Your task to perform on an android device: Clear all items from cart on ebay.com. Search for dell xps on ebay.com, select the first entry, add it to the cart, then select checkout. Image 0: 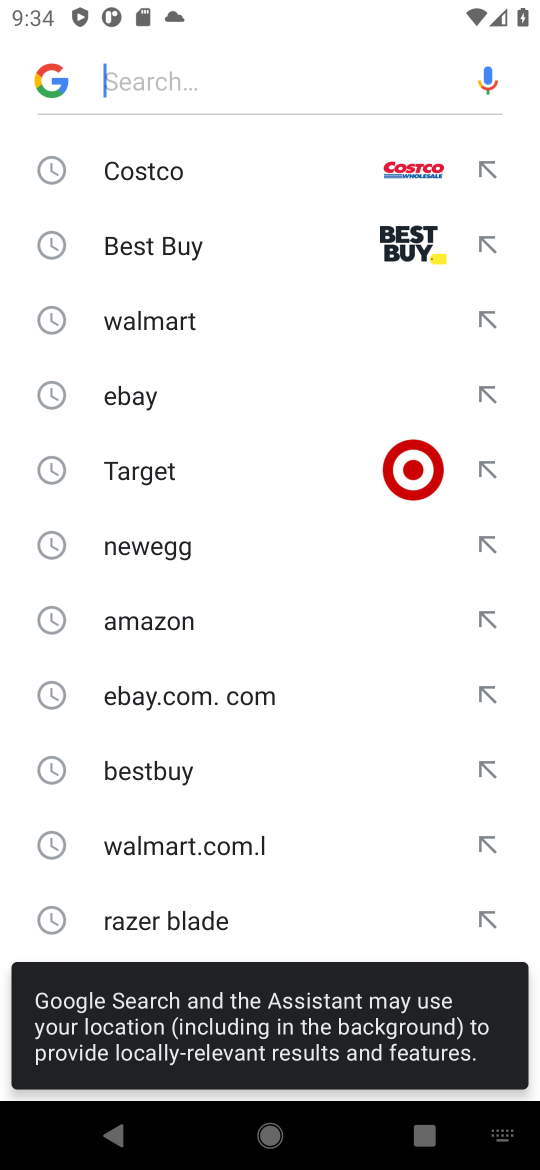
Step 0: press home button
Your task to perform on an android device: Clear all items from cart on ebay.com. Search for dell xps on ebay.com, select the first entry, add it to the cart, then select checkout. Image 1: 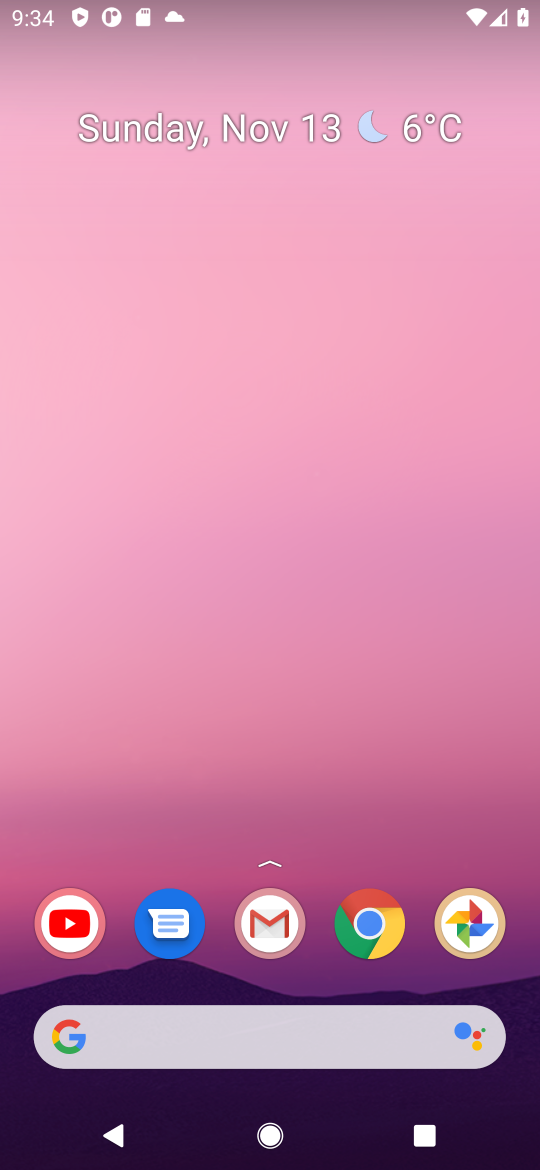
Step 1: click (378, 932)
Your task to perform on an android device: Clear all items from cart on ebay.com. Search for dell xps on ebay.com, select the first entry, add it to the cart, then select checkout. Image 2: 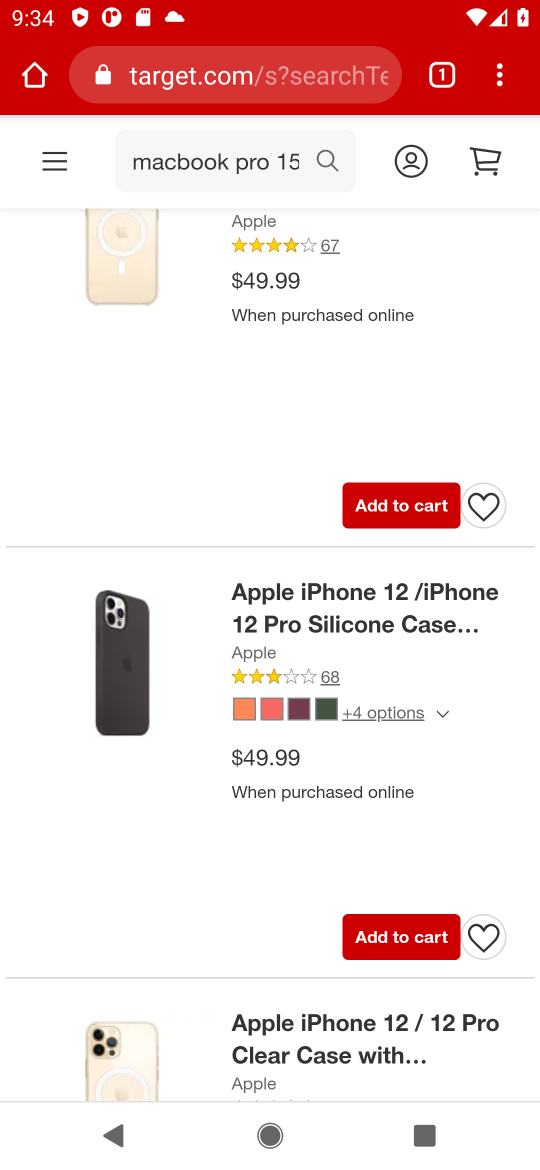
Step 2: click (340, 81)
Your task to perform on an android device: Clear all items from cart on ebay.com. Search for dell xps on ebay.com, select the first entry, add it to the cart, then select checkout. Image 3: 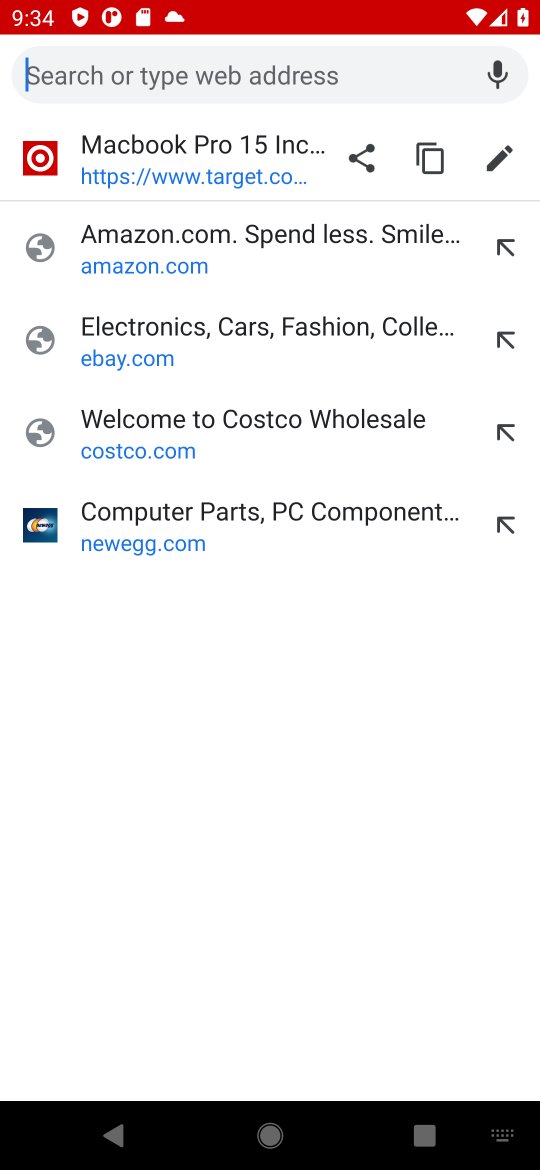
Step 3: press enter
Your task to perform on an android device: Clear all items from cart on ebay.com. Search for dell xps on ebay.com, select the first entry, add it to the cart, then select checkout. Image 4: 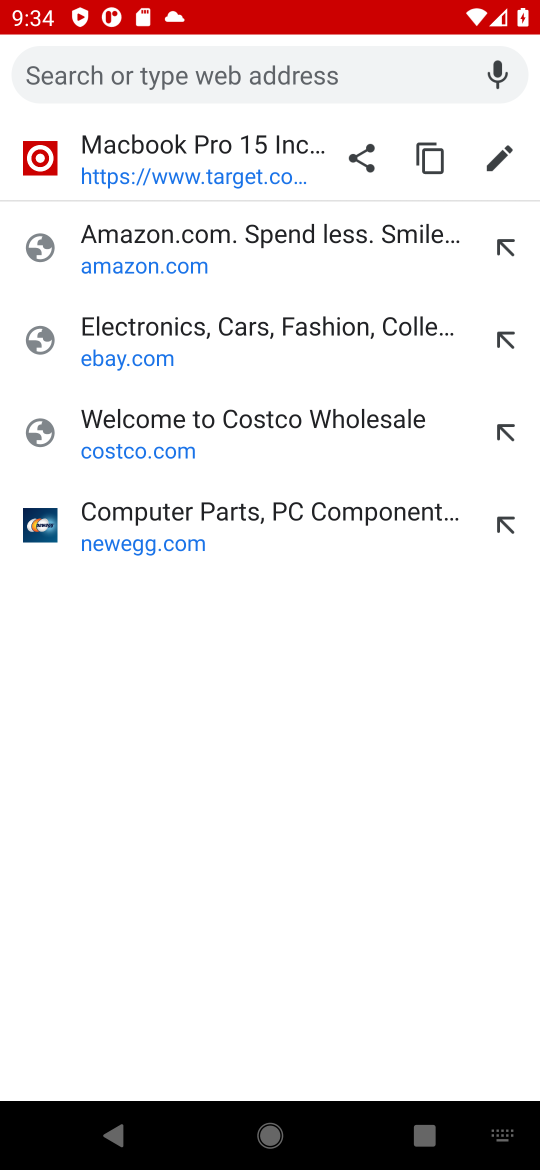
Step 4: type "ebay.com"
Your task to perform on an android device: Clear all items from cart on ebay.com. Search for dell xps on ebay.com, select the first entry, add it to the cart, then select checkout. Image 5: 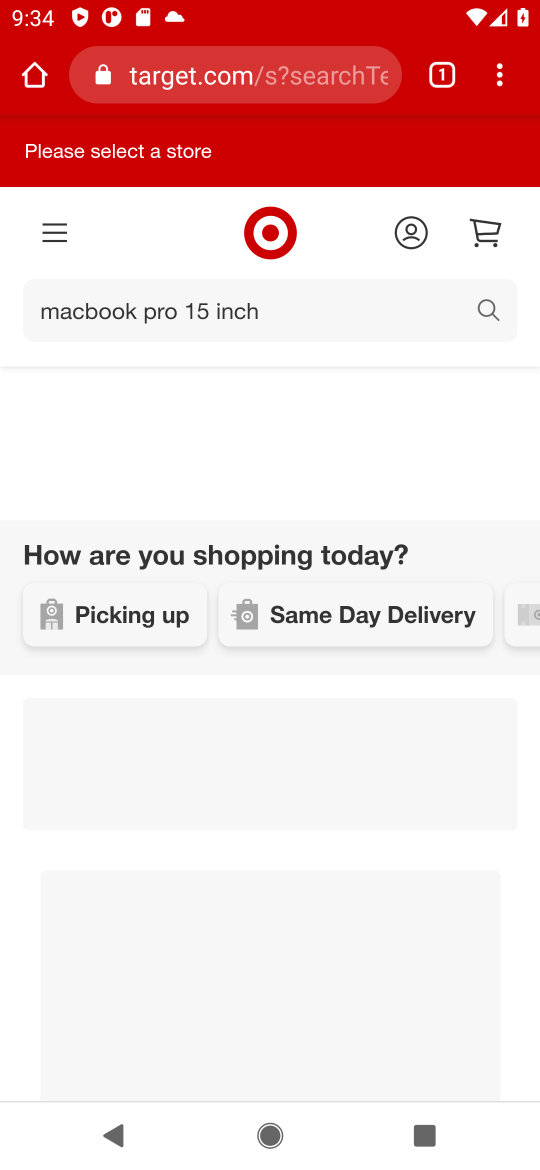
Step 5: click (266, 75)
Your task to perform on an android device: Clear all items from cart on ebay.com. Search for dell xps on ebay.com, select the first entry, add it to the cart, then select checkout. Image 6: 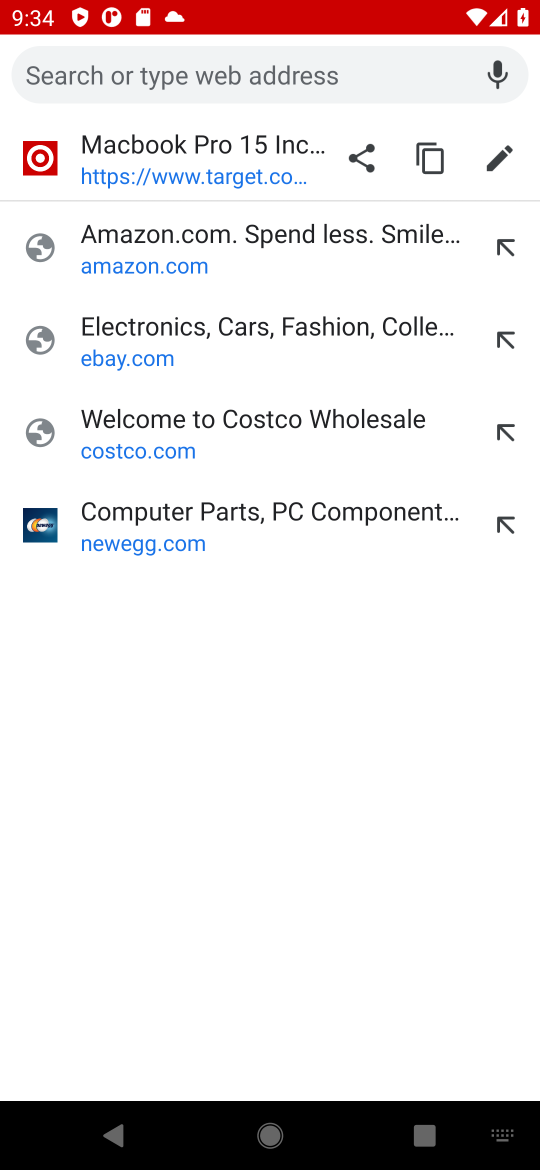
Step 6: type "ebay.com"
Your task to perform on an android device: Clear all items from cart on ebay.com. Search for dell xps on ebay.com, select the first entry, add it to the cart, then select checkout. Image 7: 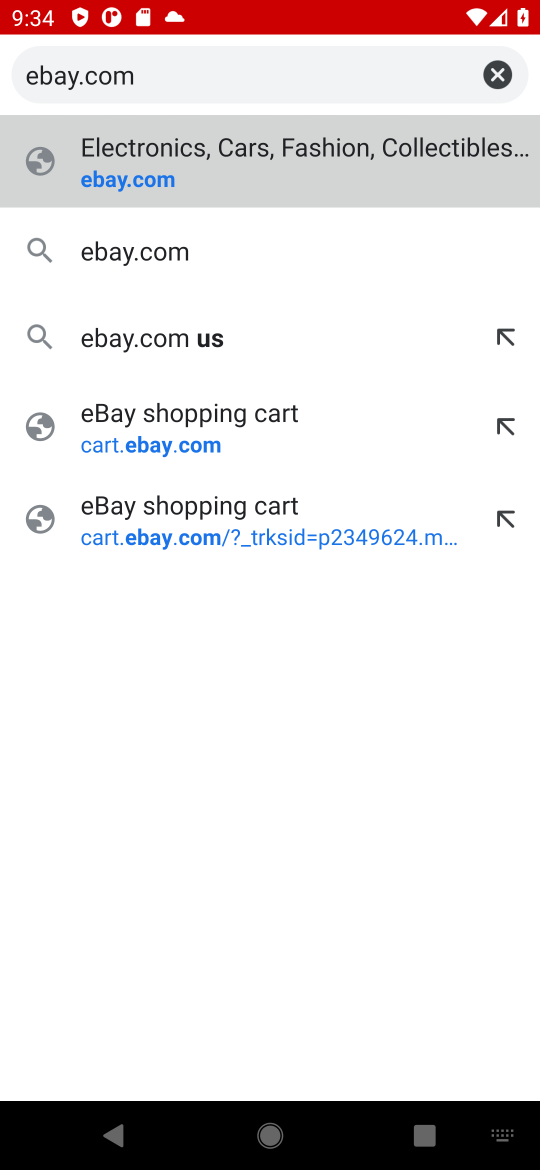
Step 7: press enter
Your task to perform on an android device: Clear all items from cart on ebay.com. Search for dell xps on ebay.com, select the first entry, add it to the cart, then select checkout. Image 8: 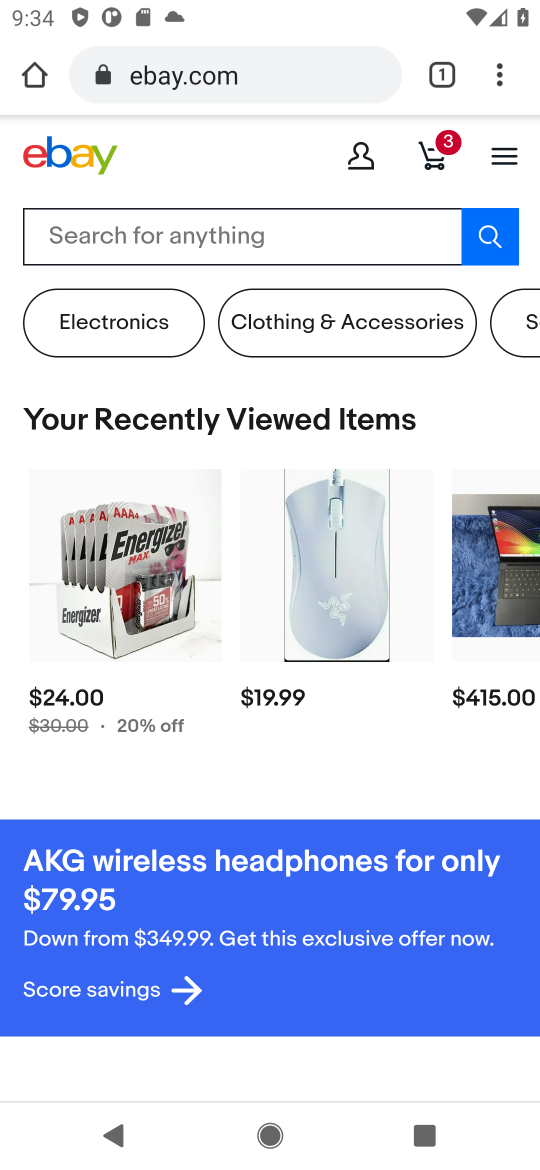
Step 8: click (434, 157)
Your task to perform on an android device: Clear all items from cart on ebay.com. Search for dell xps on ebay.com, select the first entry, add it to the cart, then select checkout. Image 9: 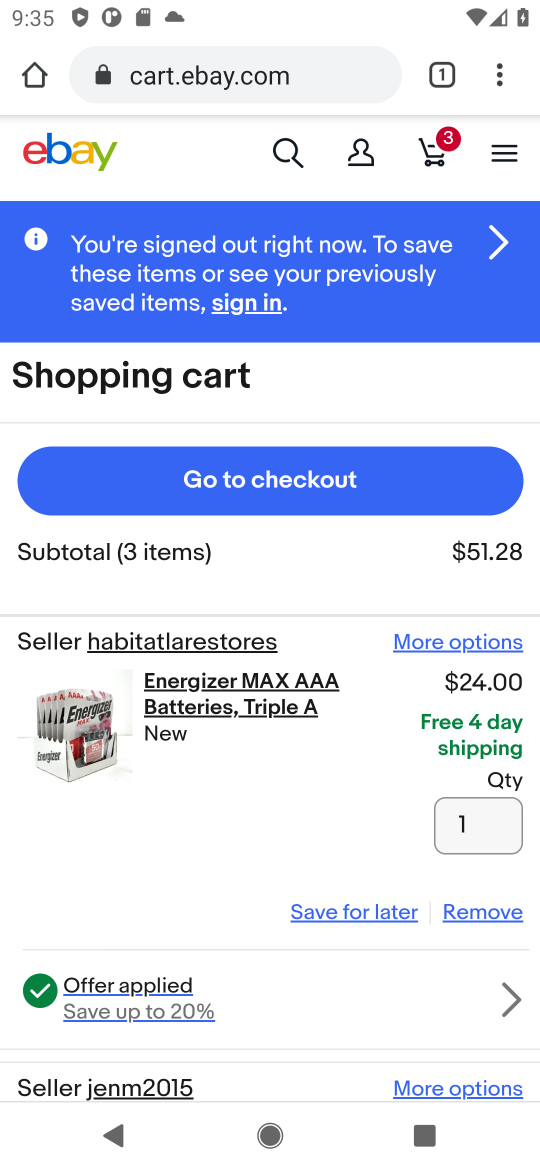
Step 9: click (479, 914)
Your task to perform on an android device: Clear all items from cart on ebay.com. Search for dell xps on ebay.com, select the first entry, add it to the cart, then select checkout. Image 10: 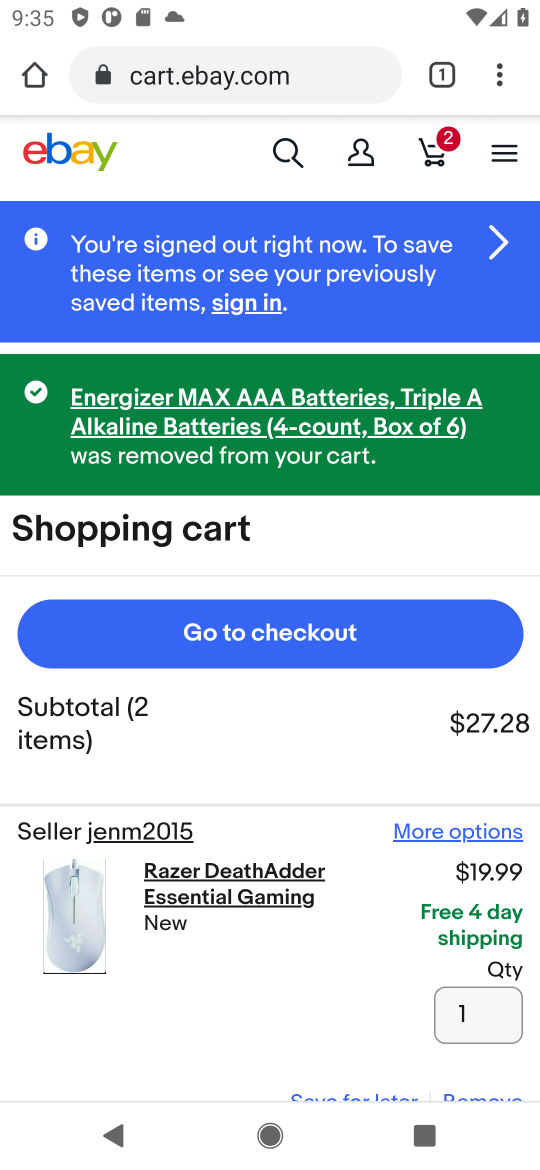
Step 10: drag from (348, 983) to (374, 568)
Your task to perform on an android device: Clear all items from cart on ebay.com. Search for dell xps on ebay.com, select the first entry, add it to the cart, then select checkout. Image 11: 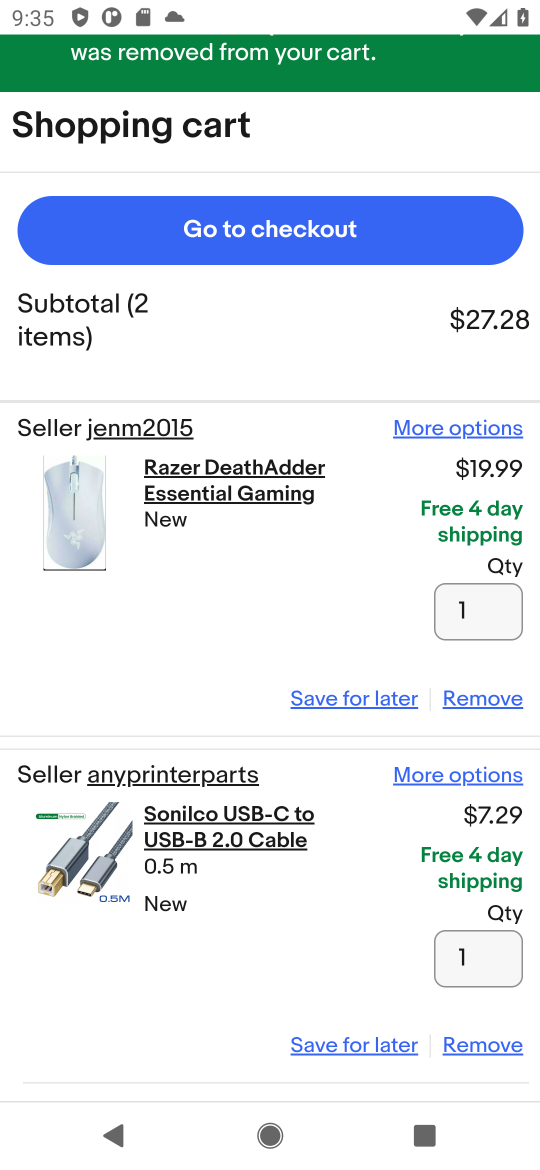
Step 11: click (493, 691)
Your task to perform on an android device: Clear all items from cart on ebay.com. Search for dell xps on ebay.com, select the first entry, add it to the cart, then select checkout. Image 12: 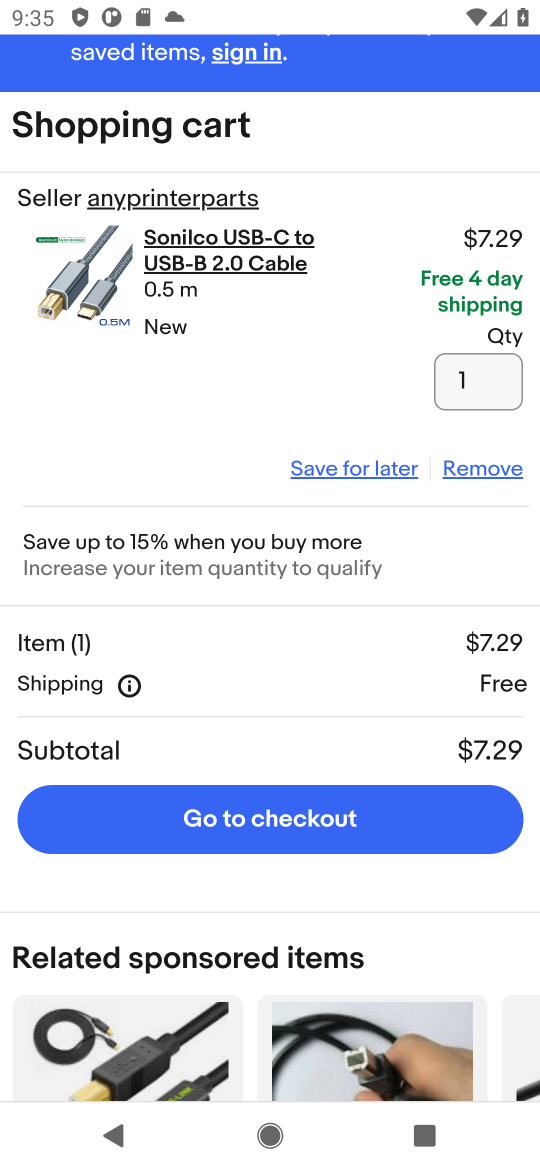
Step 12: drag from (476, 818) to (477, 701)
Your task to perform on an android device: Clear all items from cart on ebay.com. Search for dell xps on ebay.com, select the first entry, add it to the cart, then select checkout. Image 13: 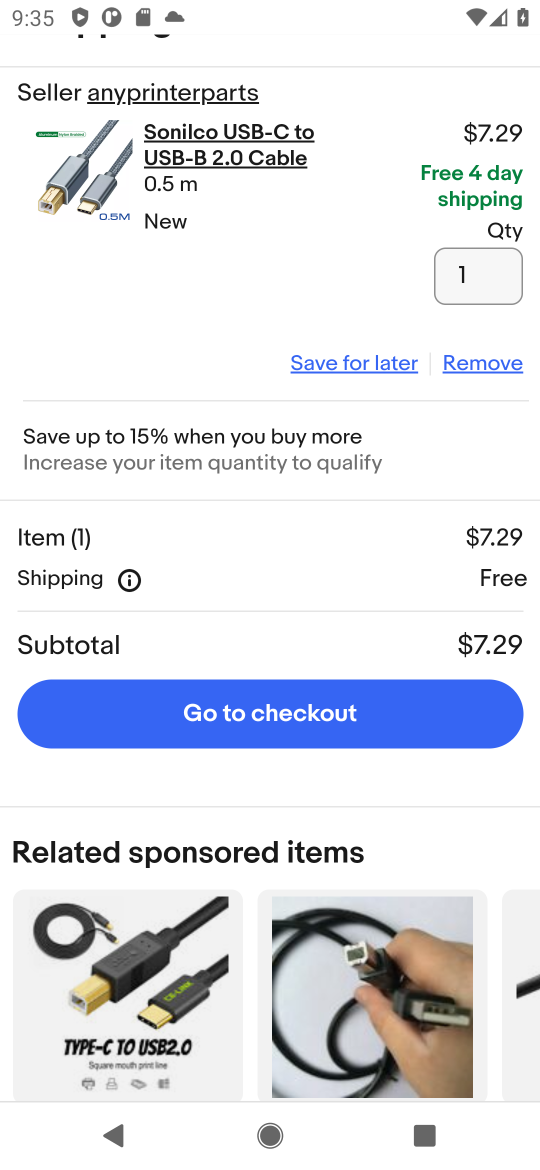
Step 13: click (499, 364)
Your task to perform on an android device: Clear all items from cart on ebay.com. Search for dell xps on ebay.com, select the first entry, add it to the cart, then select checkout. Image 14: 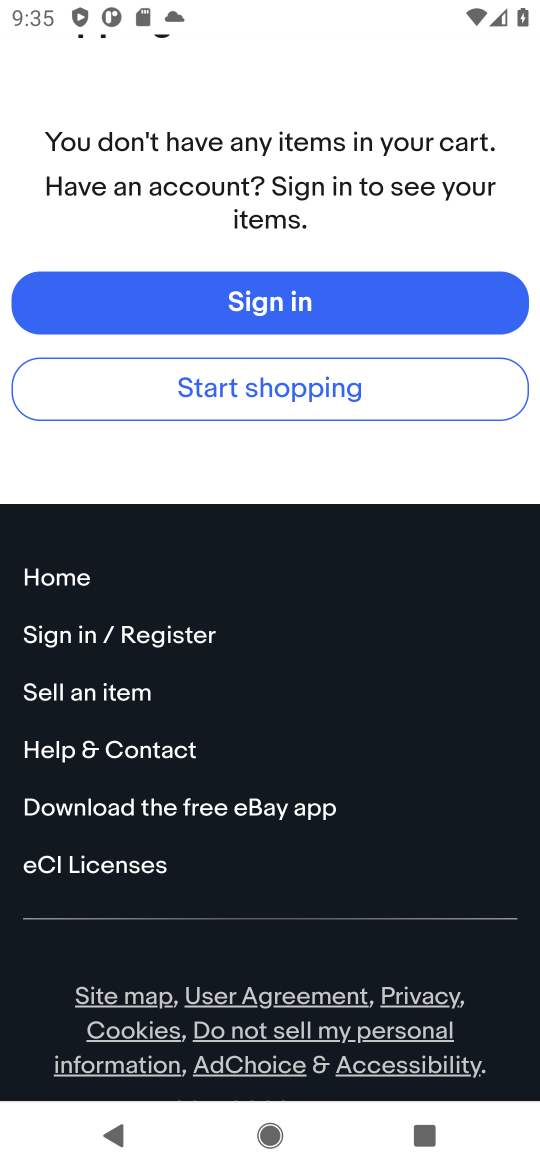
Step 14: drag from (432, 501) to (535, 1127)
Your task to perform on an android device: Clear all items from cart on ebay.com. Search for dell xps on ebay.com, select the first entry, add it to the cart, then select checkout. Image 15: 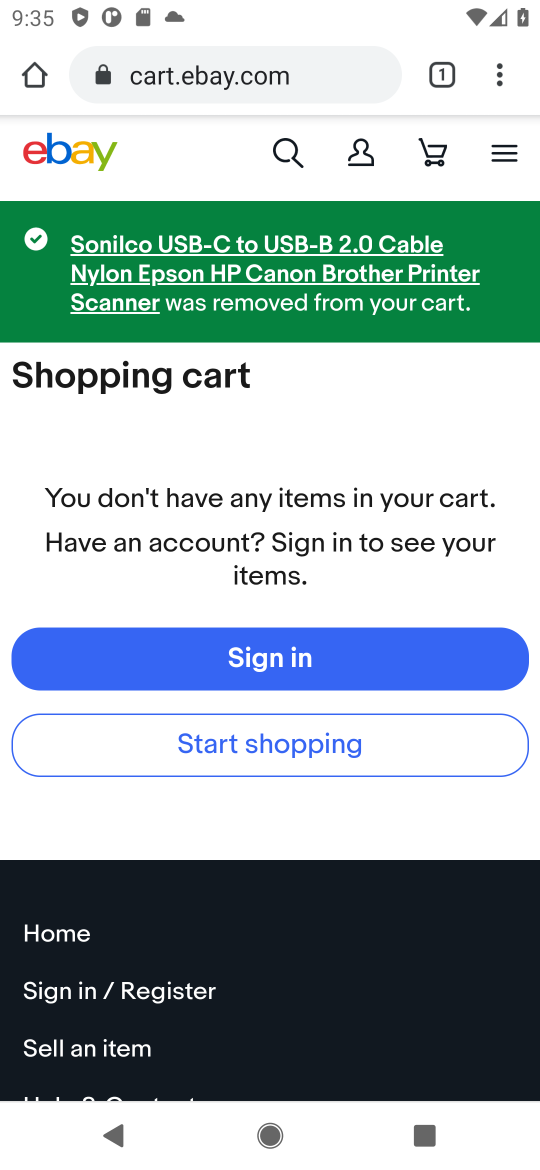
Step 15: click (282, 147)
Your task to perform on an android device: Clear all items from cart on ebay.com. Search for dell xps on ebay.com, select the first entry, add it to the cart, then select checkout. Image 16: 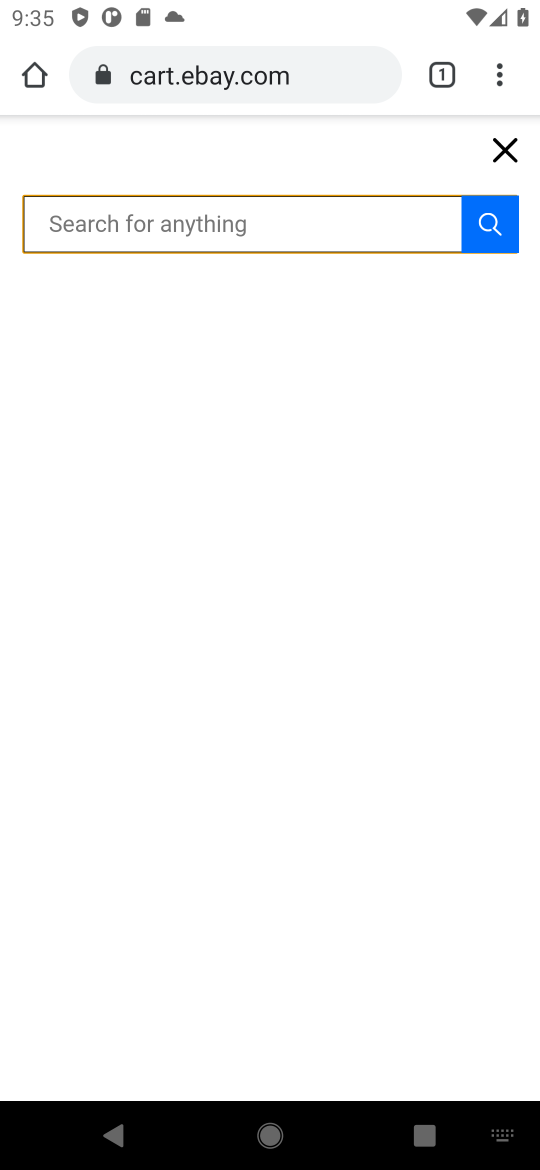
Step 16: type "dell xps "
Your task to perform on an android device: Clear all items from cart on ebay.com. Search for dell xps on ebay.com, select the first entry, add it to the cart, then select checkout. Image 17: 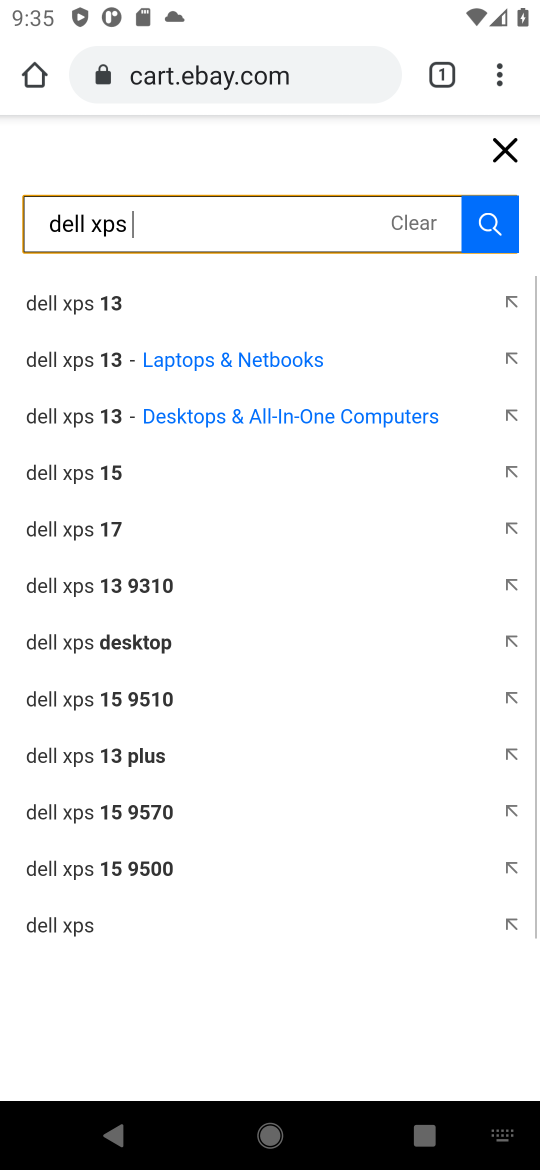
Step 17: press enter
Your task to perform on an android device: Clear all items from cart on ebay.com. Search for dell xps on ebay.com, select the first entry, add it to the cart, then select checkout. Image 18: 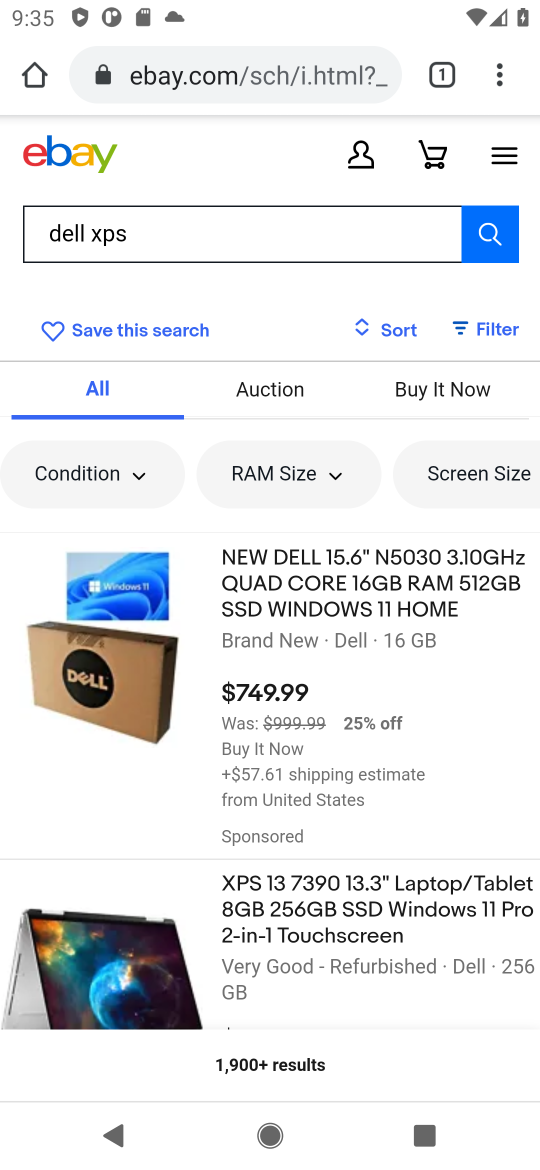
Step 18: drag from (412, 848) to (483, 454)
Your task to perform on an android device: Clear all items from cart on ebay.com. Search for dell xps on ebay.com, select the first entry, add it to the cart, then select checkout. Image 19: 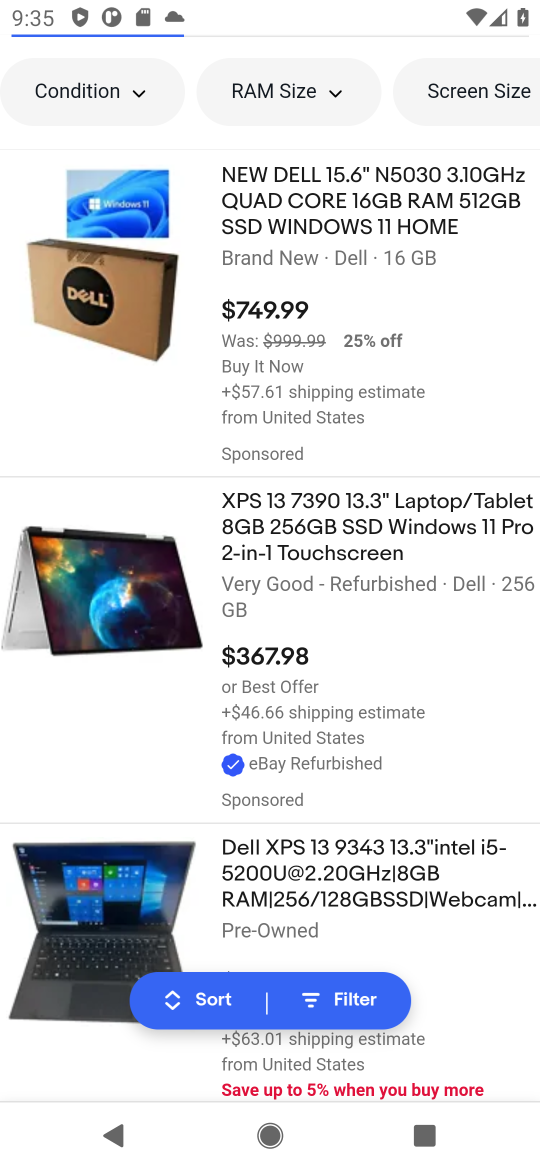
Step 19: click (96, 911)
Your task to perform on an android device: Clear all items from cart on ebay.com. Search for dell xps on ebay.com, select the first entry, add it to the cart, then select checkout. Image 20: 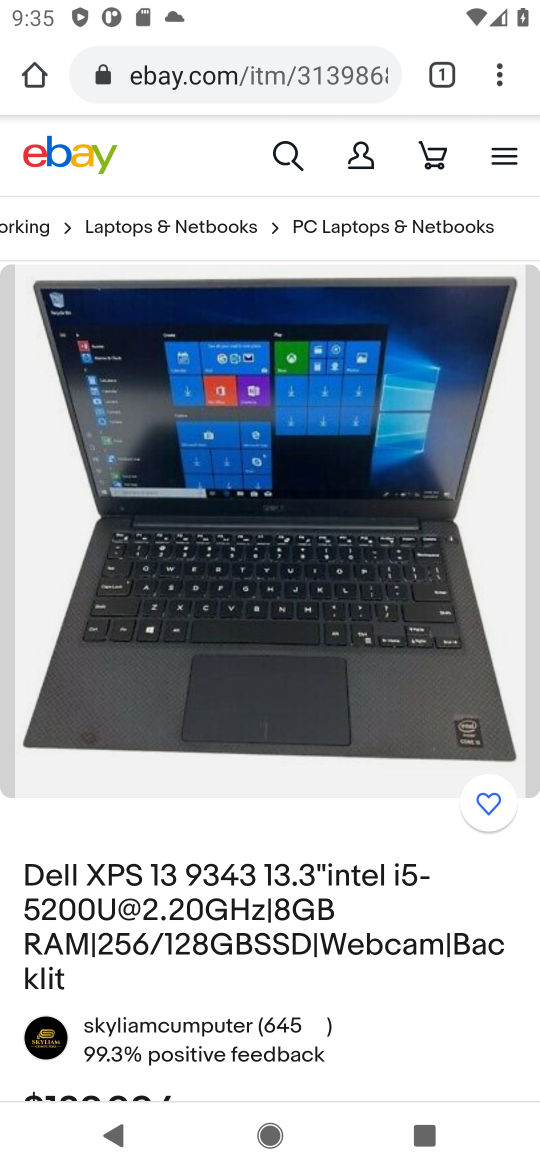
Step 20: drag from (329, 757) to (294, 419)
Your task to perform on an android device: Clear all items from cart on ebay.com. Search for dell xps on ebay.com, select the first entry, add it to the cart, then select checkout. Image 21: 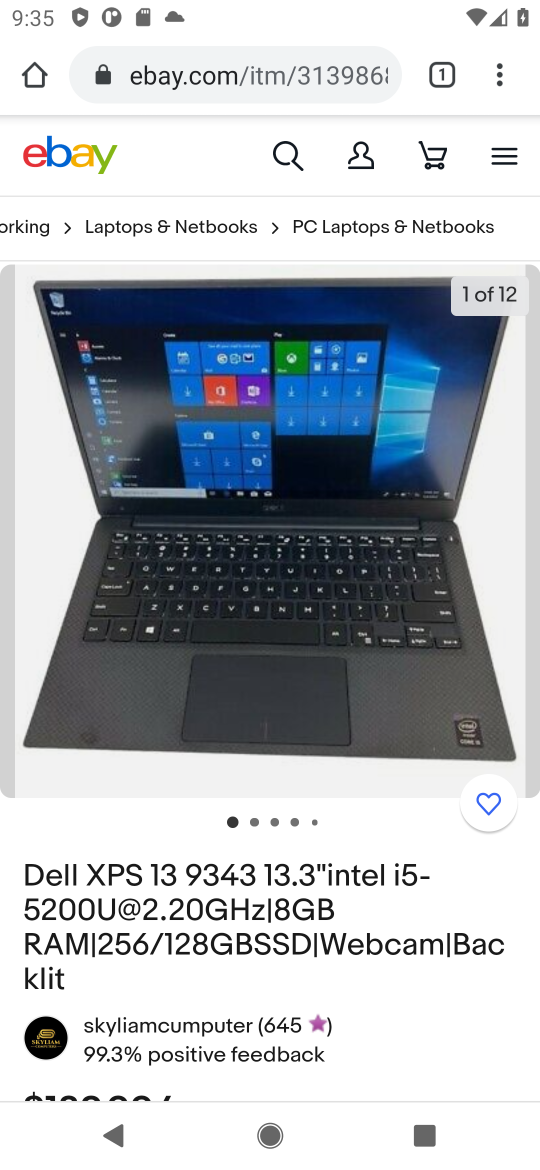
Step 21: drag from (409, 738) to (377, 341)
Your task to perform on an android device: Clear all items from cart on ebay.com. Search for dell xps on ebay.com, select the first entry, add it to the cart, then select checkout. Image 22: 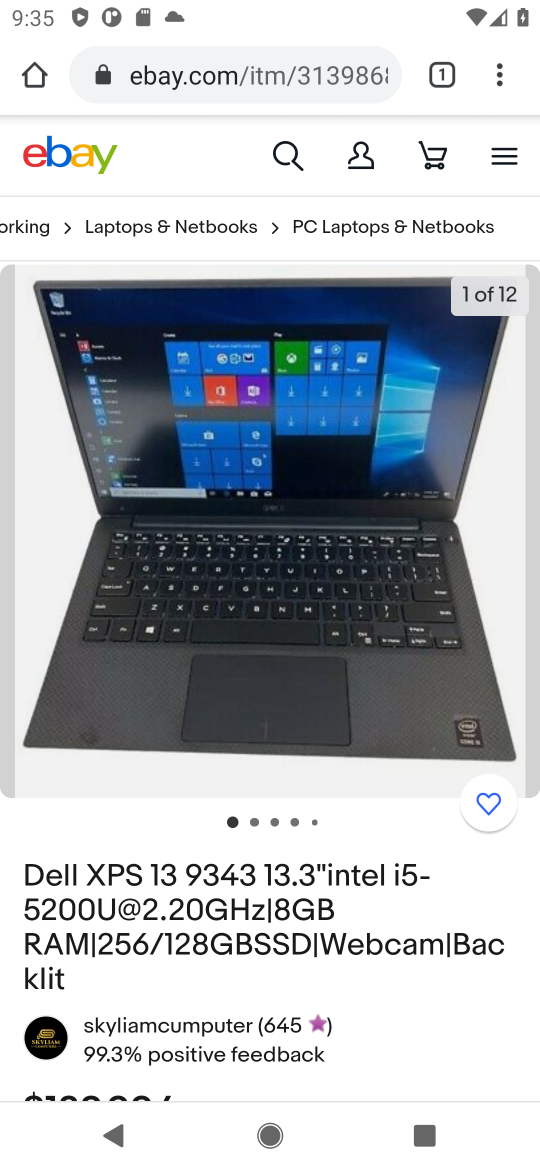
Step 22: drag from (398, 947) to (500, 228)
Your task to perform on an android device: Clear all items from cart on ebay.com. Search for dell xps on ebay.com, select the first entry, add it to the cart, then select checkout. Image 23: 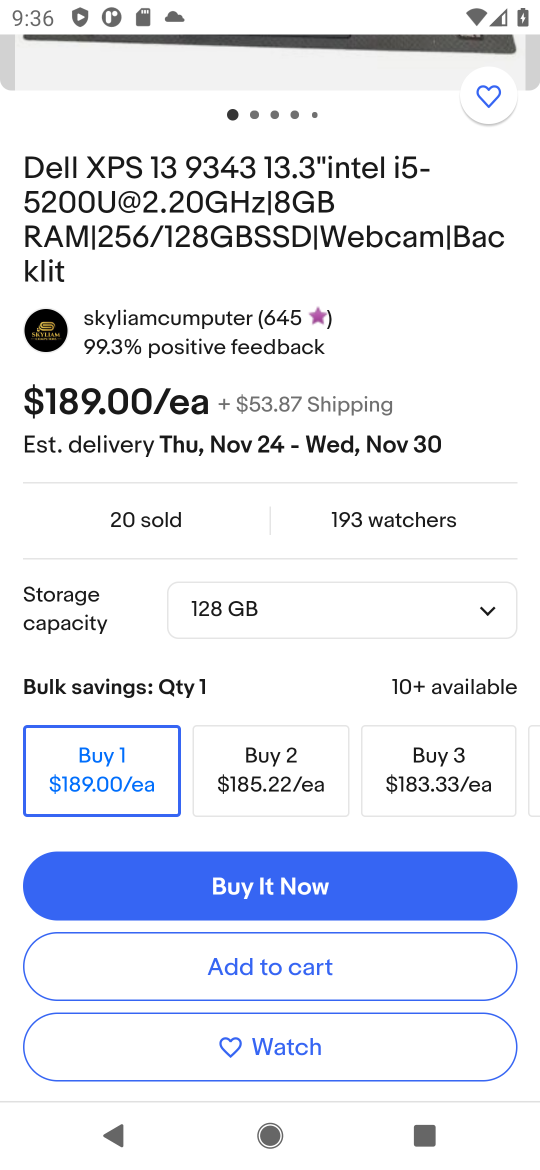
Step 23: click (291, 959)
Your task to perform on an android device: Clear all items from cart on ebay.com. Search for dell xps on ebay.com, select the first entry, add it to the cart, then select checkout. Image 24: 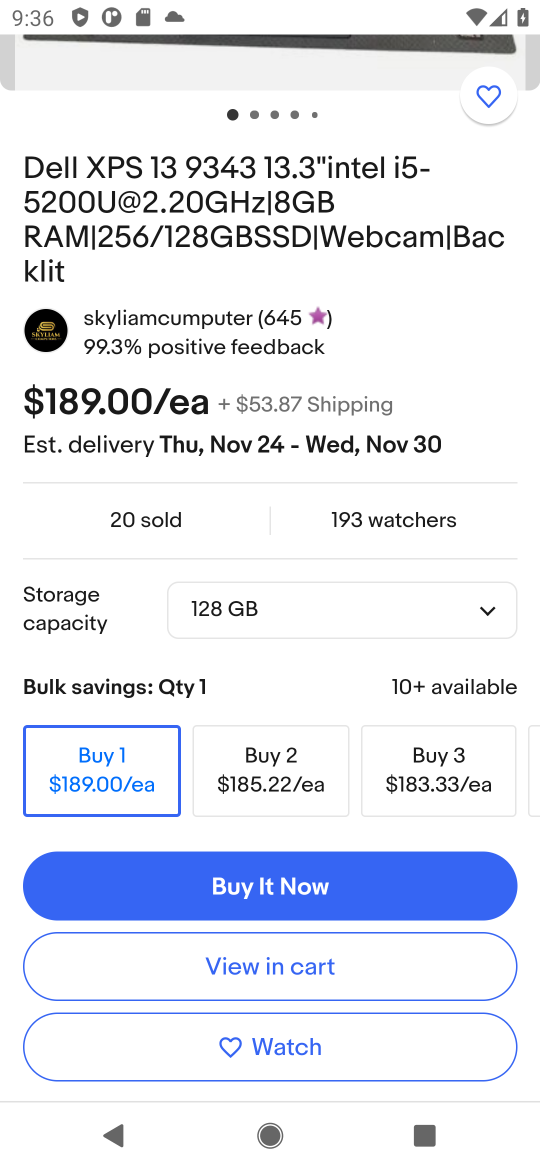
Step 24: click (245, 966)
Your task to perform on an android device: Clear all items from cart on ebay.com. Search for dell xps on ebay.com, select the first entry, add it to the cart, then select checkout. Image 25: 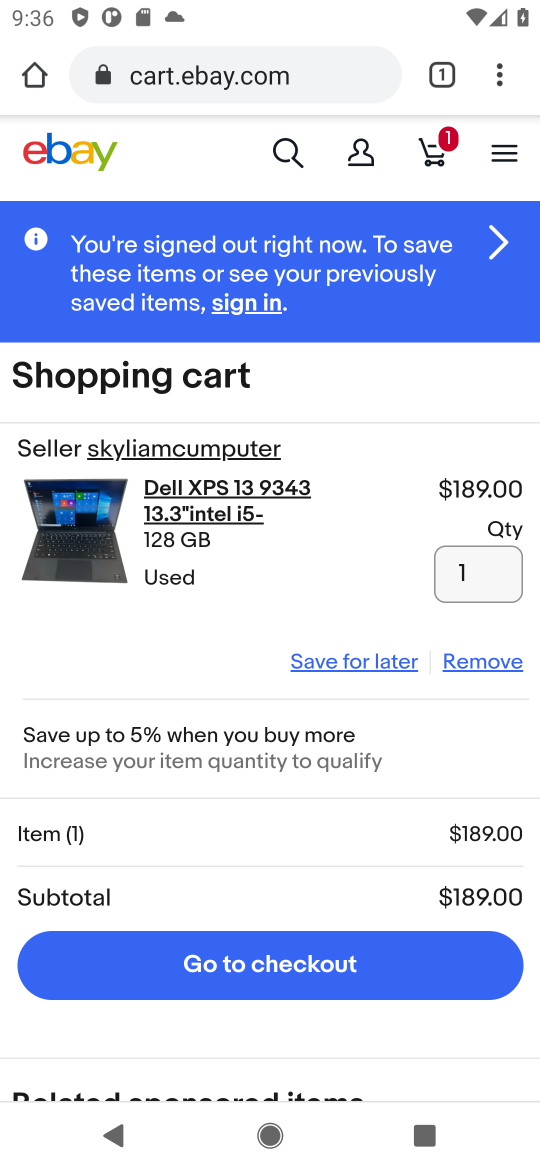
Step 25: click (285, 959)
Your task to perform on an android device: Clear all items from cart on ebay.com. Search for dell xps on ebay.com, select the first entry, add it to the cart, then select checkout. Image 26: 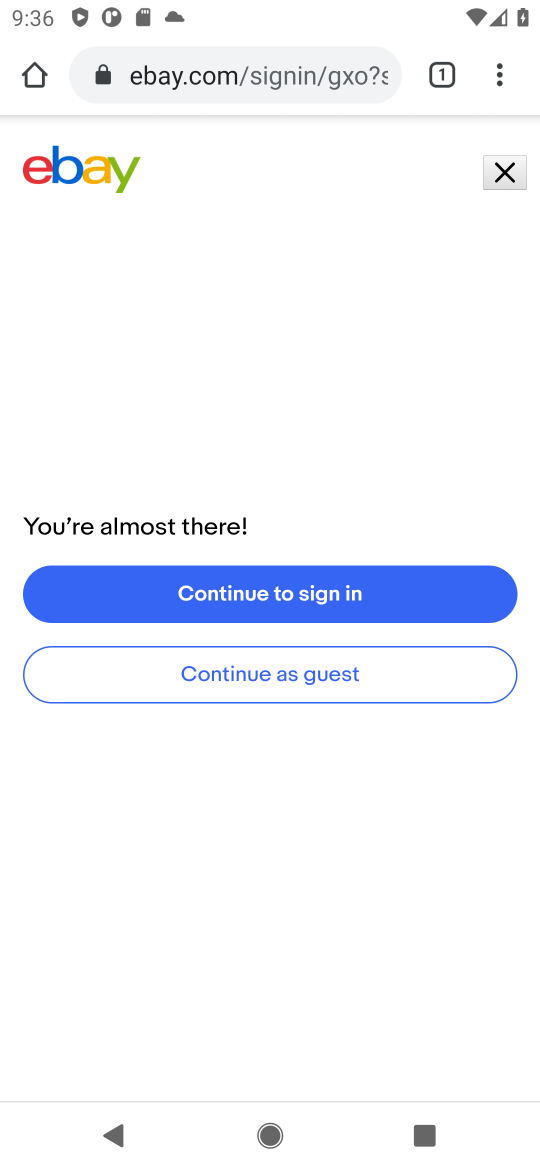
Step 26: task complete